Your task to perform on an android device: Play the last video I watched on Youtube Image 0: 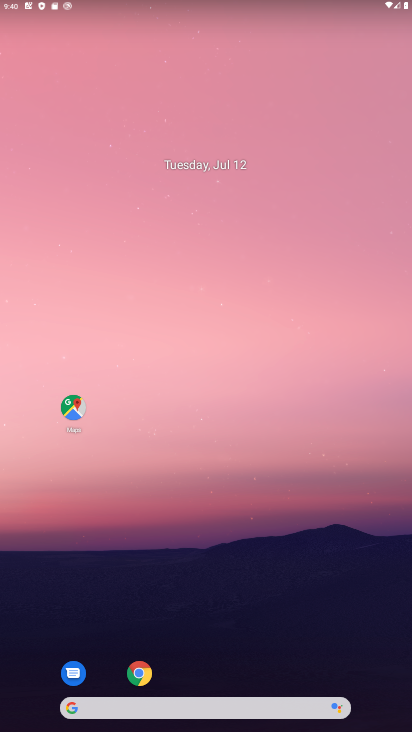
Step 0: drag from (193, 292) to (194, 99)
Your task to perform on an android device: Play the last video I watched on Youtube Image 1: 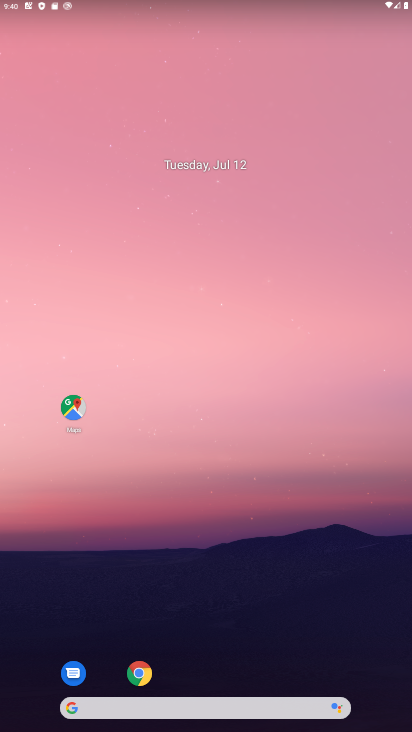
Step 1: drag from (239, 571) to (230, 44)
Your task to perform on an android device: Play the last video I watched on Youtube Image 2: 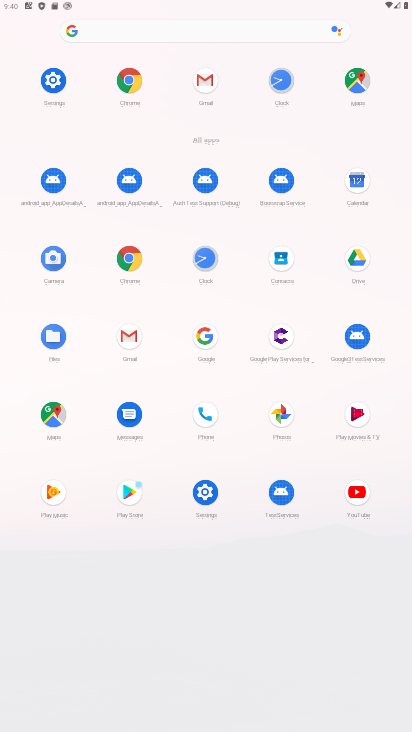
Step 2: click (354, 507)
Your task to perform on an android device: Play the last video I watched on Youtube Image 3: 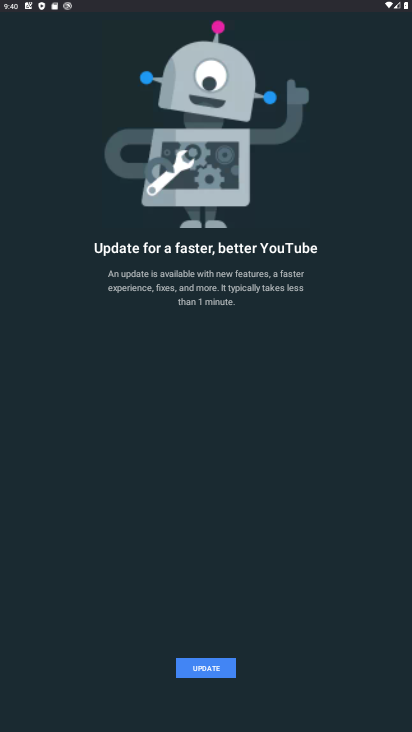
Step 3: click (202, 672)
Your task to perform on an android device: Play the last video I watched on Youtube Image 4: 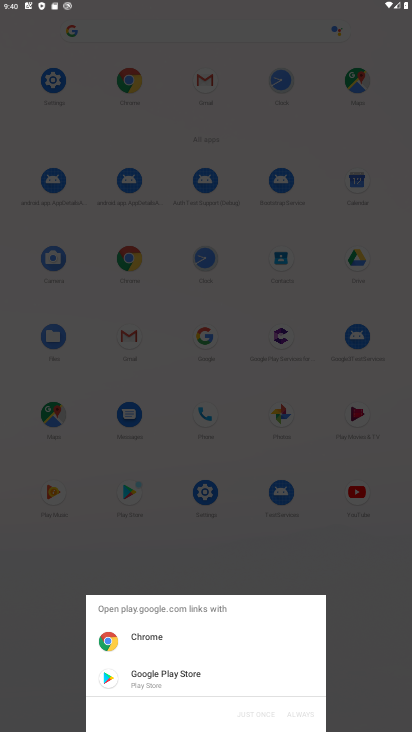
Step 4: click (161, 673)
Your task to perform on an android device: Play the last video I watched on Youtube Image 5: 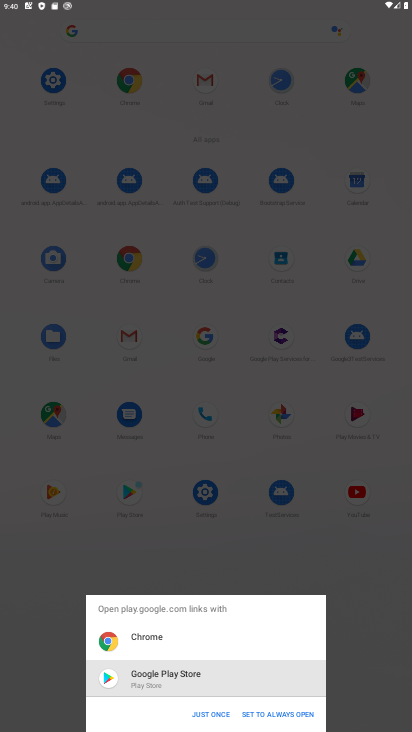
Step 5: click (304, 714)
Your task to perform on an android device: Play the last video I watched on Youtube Image 6: 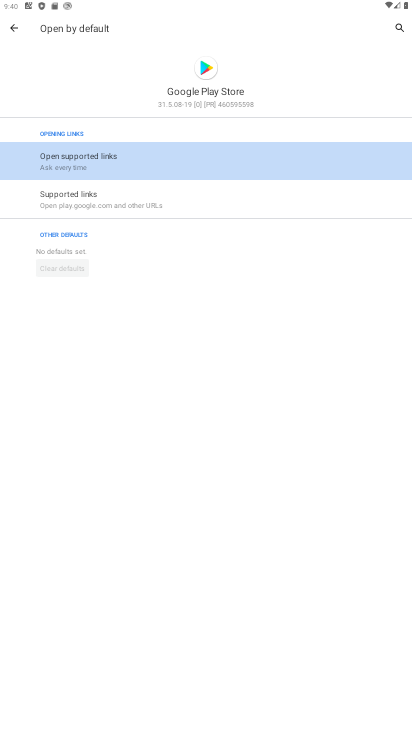
Step 6: click (74, 157)
Your task to perform on an android device: Play the last video I watched on Youtube Image 7: 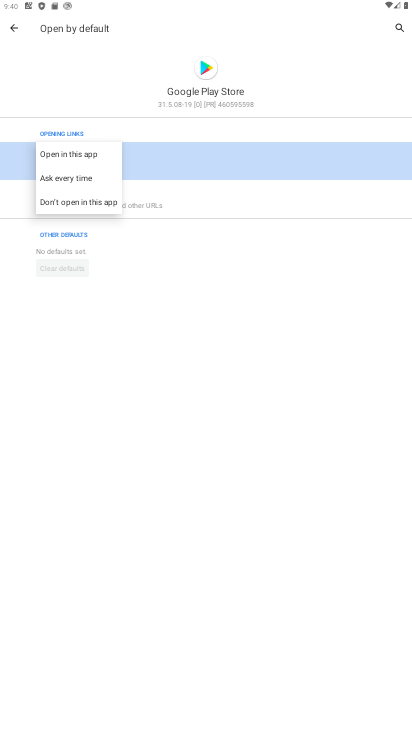
Step 7: click (58, 153)
Your task to perform on an android device: Play the last video I watched on Youtube Image 8: 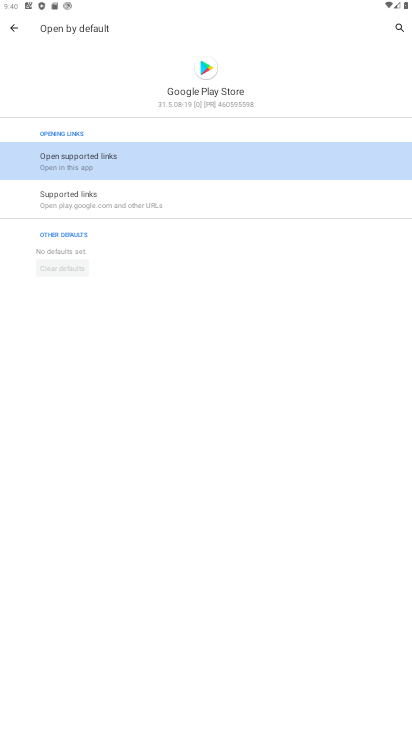
Step 8: click (15, 27)
Your task to perform on an android device: Play the last video I watched on Youtube Image 9: 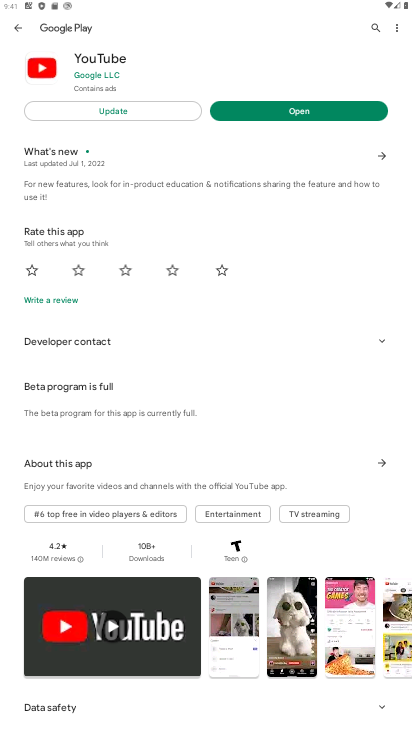
Step 9: click (112, 108)
Your task to perform on an android device: Play the last video I watched on Youtube Image 10: 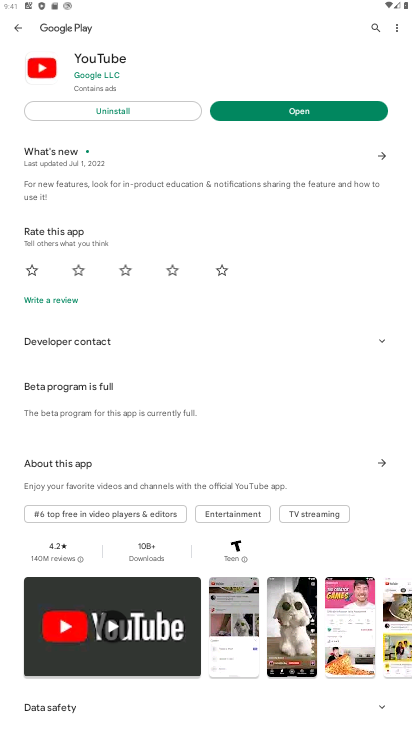
Step 10: click (297, 112)
Your task to perform on an android device: Play the last video I watched on Youtube Image 11: 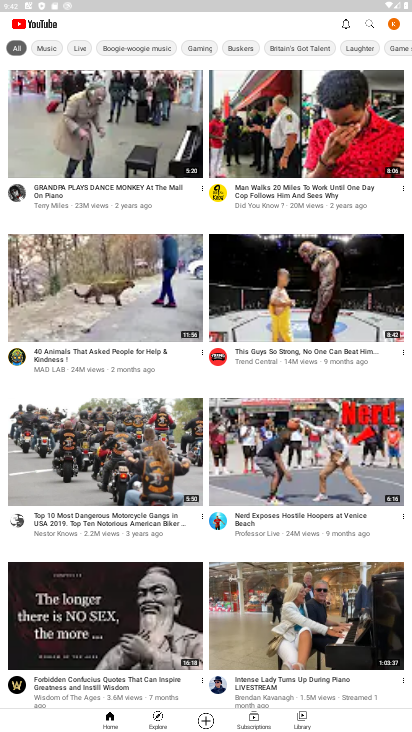
Step 11: click (302, 720)
Your task to perform on an android device: Play the last video I watched on Youtube Image 12: 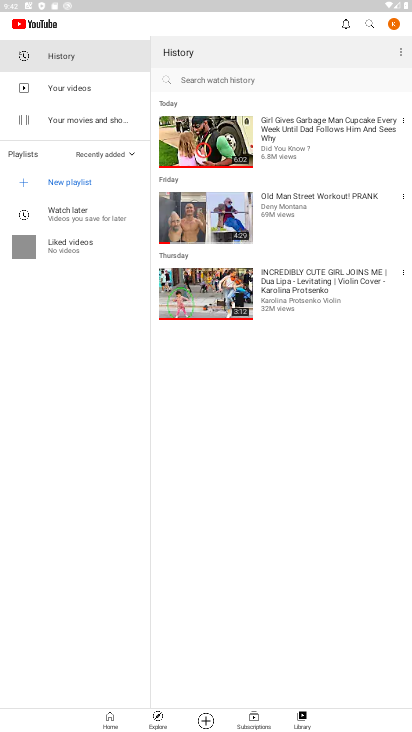
Step 12: task complete